Your task to perform on an android device: turn notification dots off Image 0: 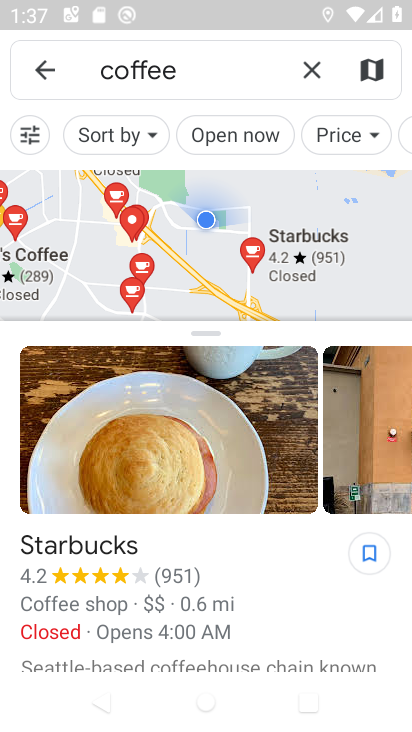
Step 0: press home button
Your task to perform on an android device: turn notification dots off Image 1: 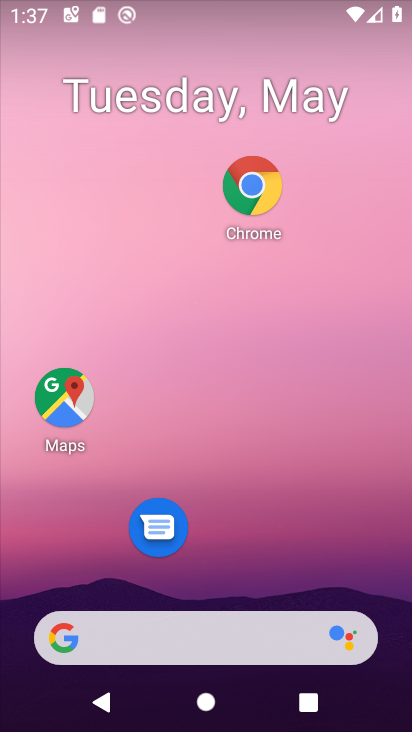
Step 1: drag from (250, 552) to (105, 44)
Your task to perform on an android device: turn notification dots off Image 2: 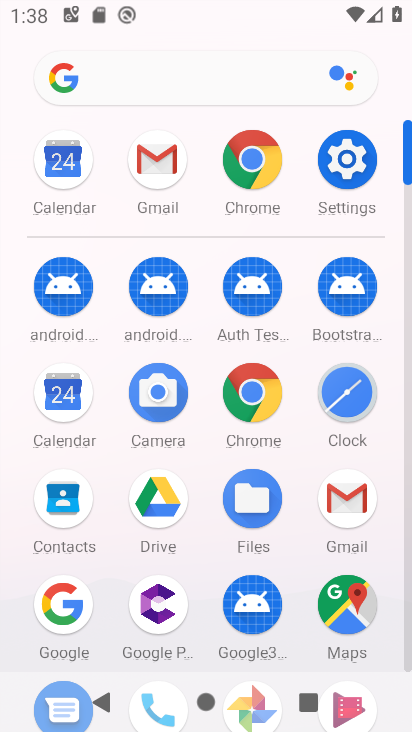
Step 2: click (343, 160)
Your task to perform on an android device: turn notification dots off Image 3: 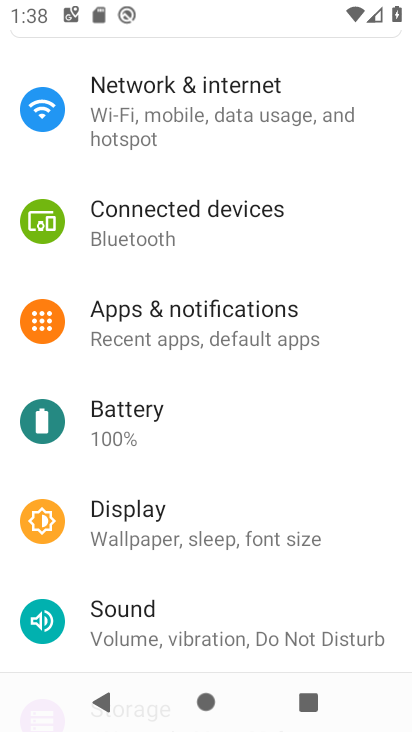
Step 3: click (211, 300)
Your task to perform on an android device: turn notification dots off Image 4: 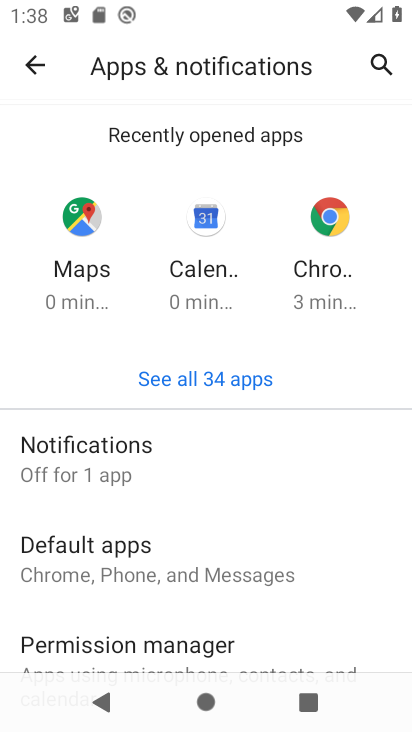
Step 4: drag from (186, 456) to (155, 168)
Your task to perform on an android device: turn notification dots off Image 5: 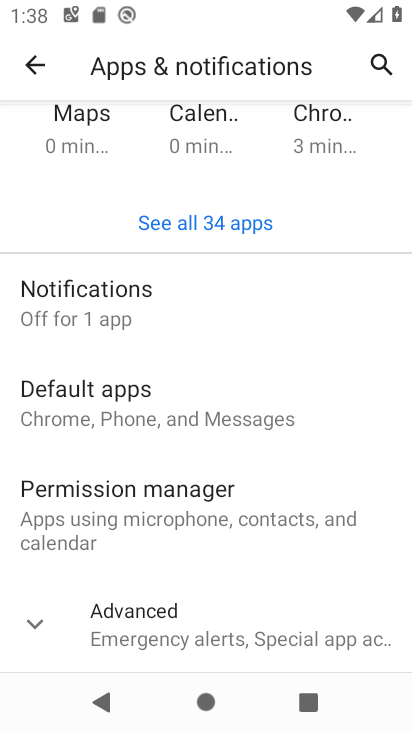
Step 5: click (73, 323)
Your task to perform on an android device: turn notification dots off Image 6: 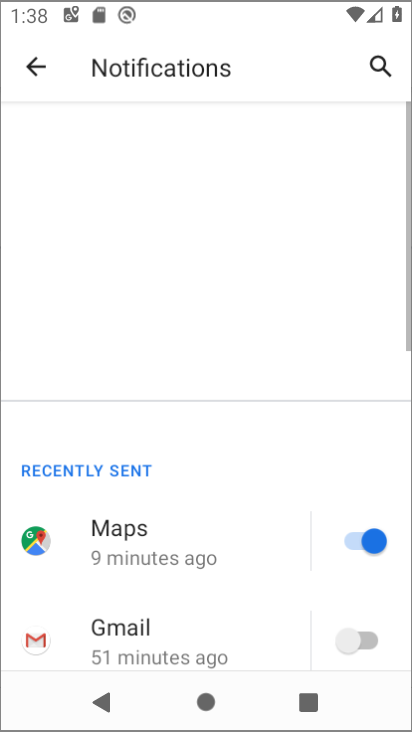
Step 6: click (75, 290)
Your task to perform on an android device: turn notification dots off Image 7: 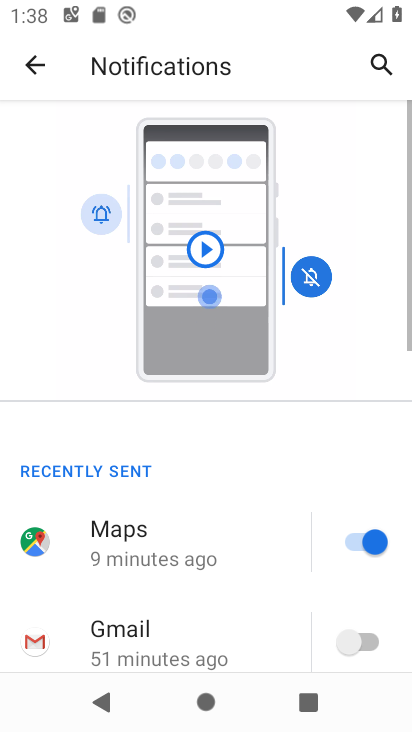
Step 7: drag from (230, 535) to (178, 171)
Your task to perform on an android device: turn notification dots off Image 8: 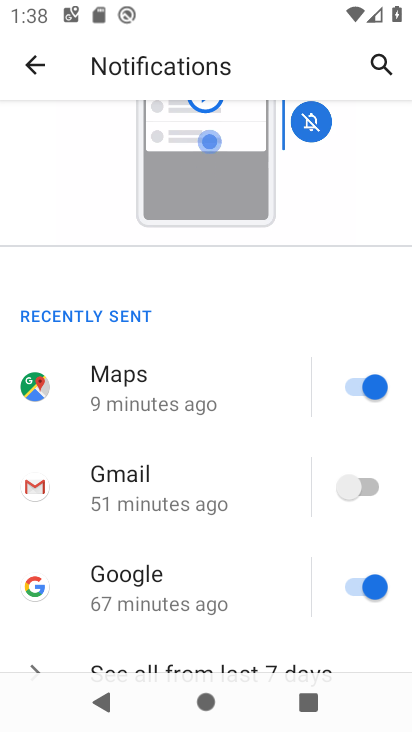
Step 8: drag from (256, 548) to (244, 136)
Your task to perform on an android device: turn notification dots off Image 9: 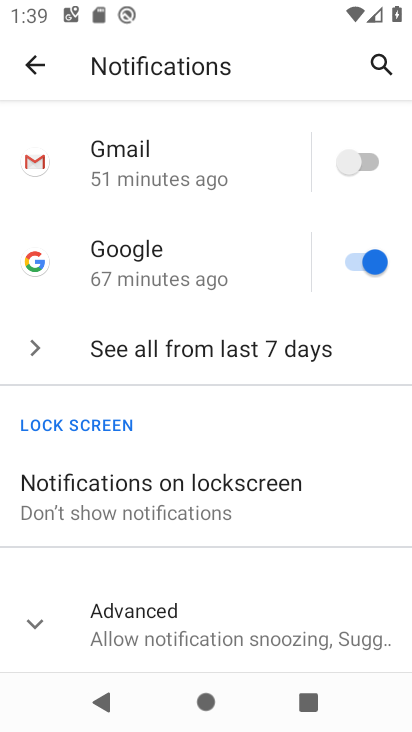
Step 9: drag from (286, 542) to (274, 232)
Your task to perform on an android device: turn notification dots off Image 10: 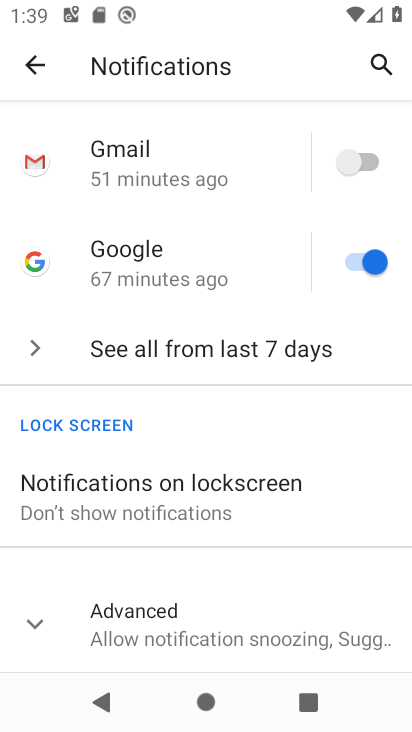
Step 10: click (44, 622)
Your task to perform on an android device: turn notification dots off Image 11: 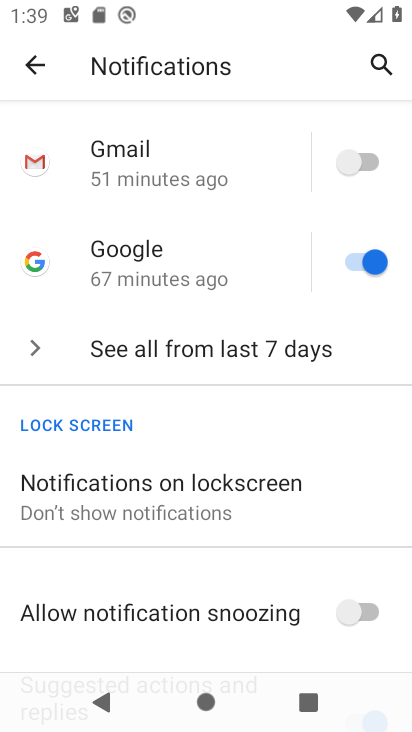
Step 11: drag from (228, 552) to (194, 169)
Your task to perform on an android device: turn notification dots off Image 12: 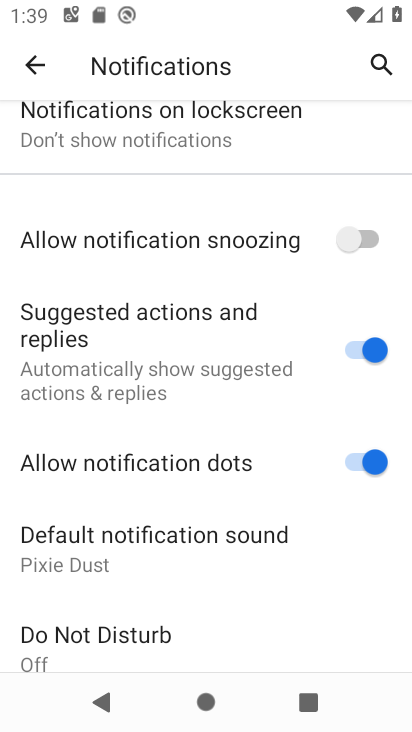
Step 12: click (360, 455)
Your task to perform on an android device: turn notification dots off Image 13: 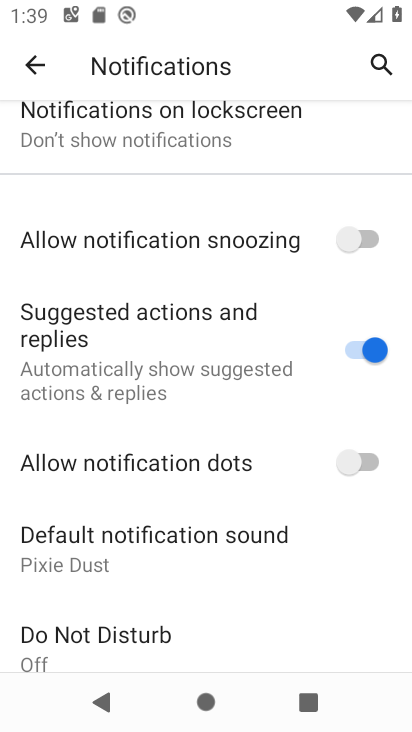
Step 13: task complete